Your task to perform on an android device: turn on bluetooth scan Image 0: 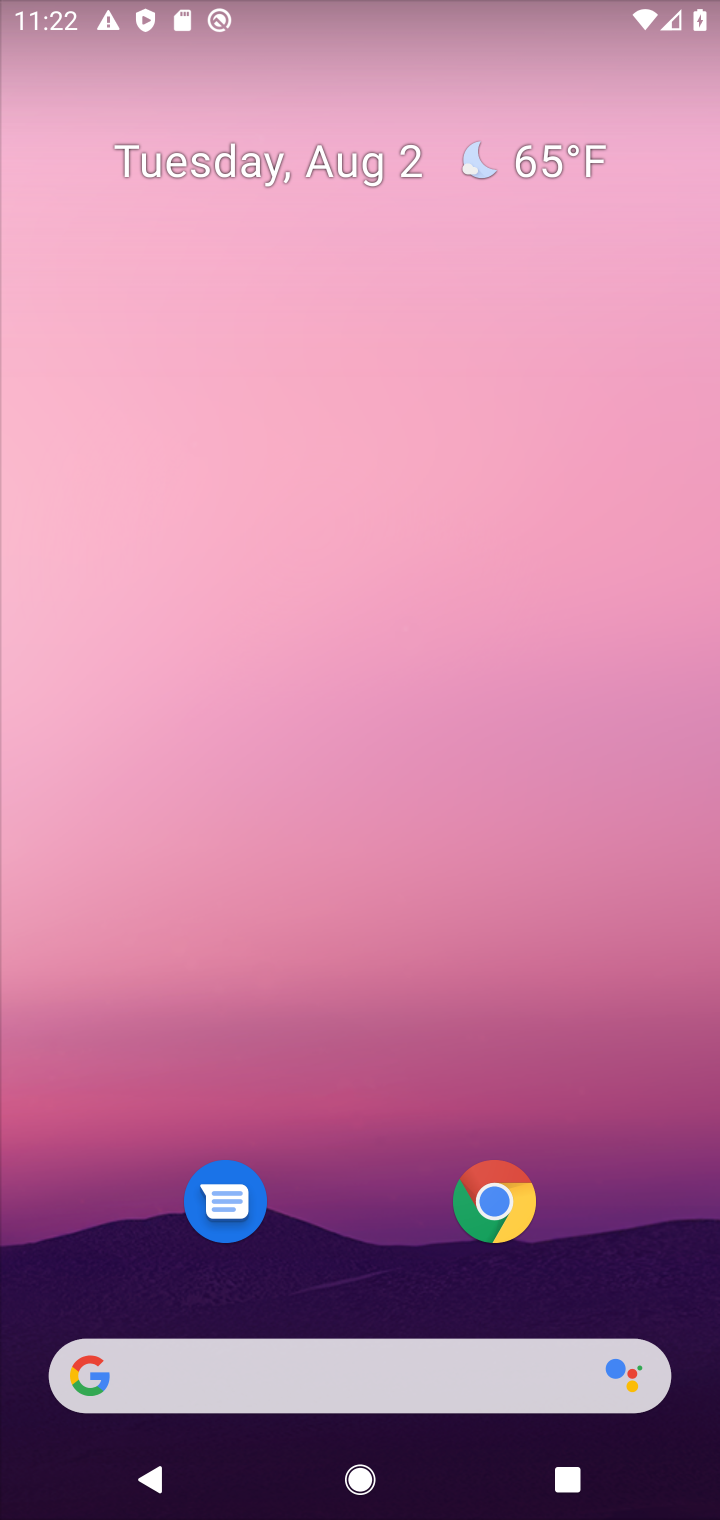
Step 0: drag from (342, 1282) to (169, 43)
Your task to perform on an android device: turn on bluetooth scan Image 1: 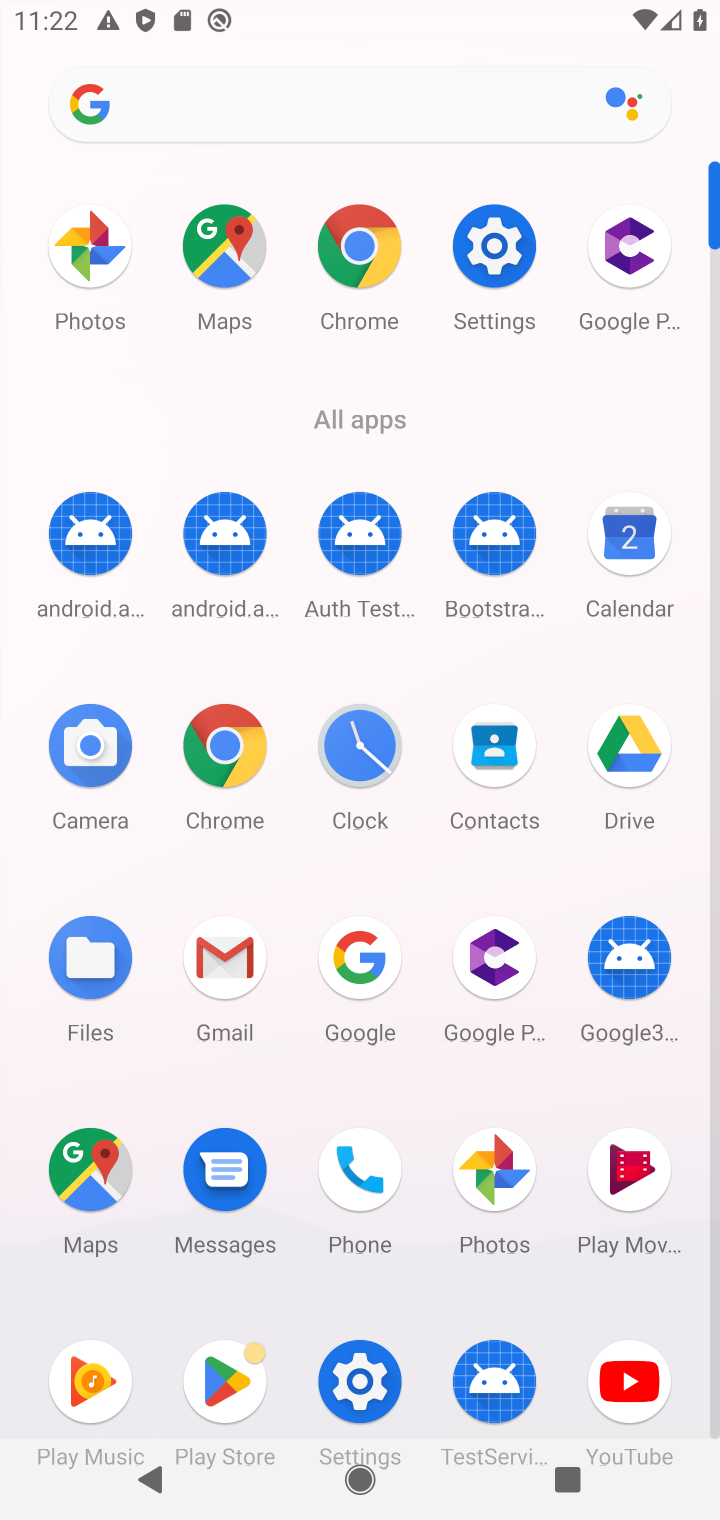
Step 1: click (482, 286)
Your task to perform on an android device: turn on bluetooth scan Image 2: 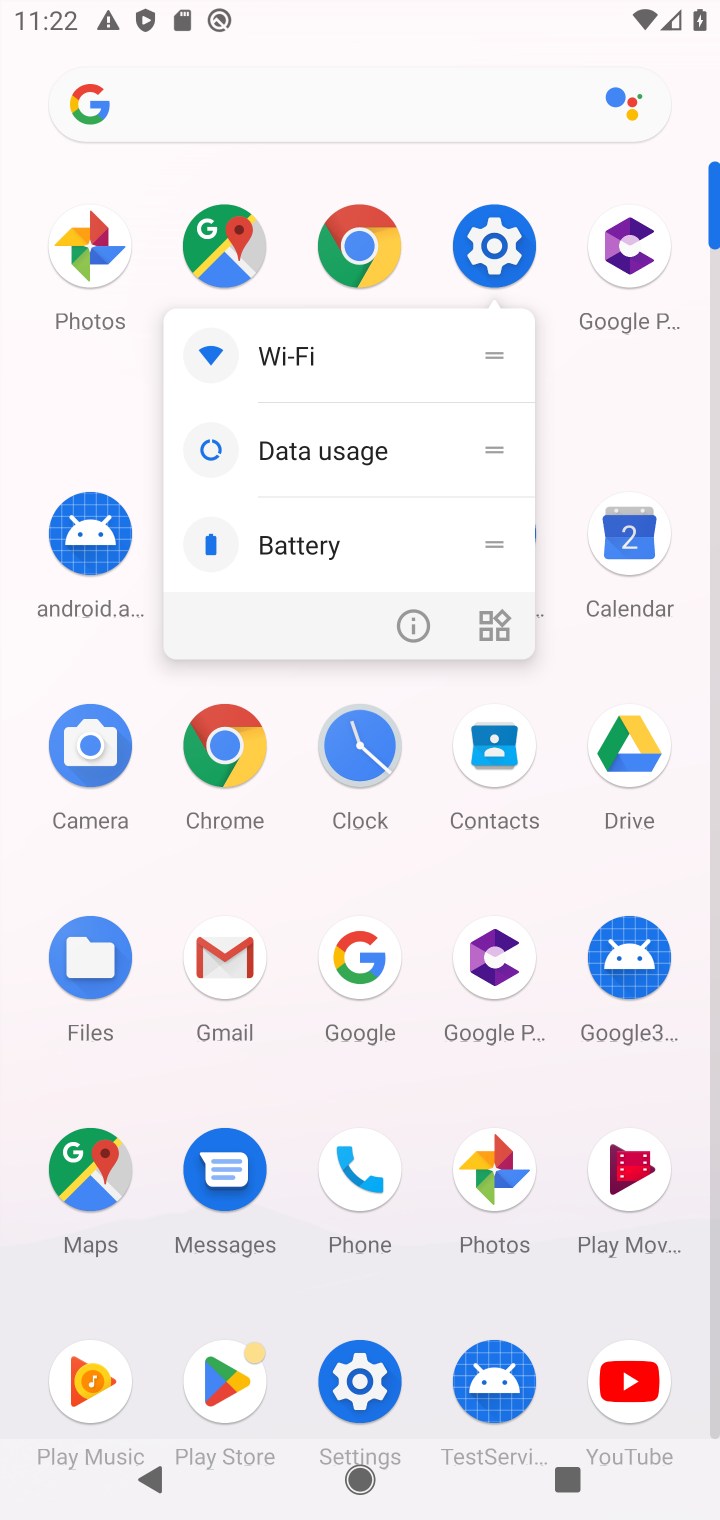
Step 2: click (479, 244)
Your task to perform on an android device: turn on bluetooth scan Image 3: 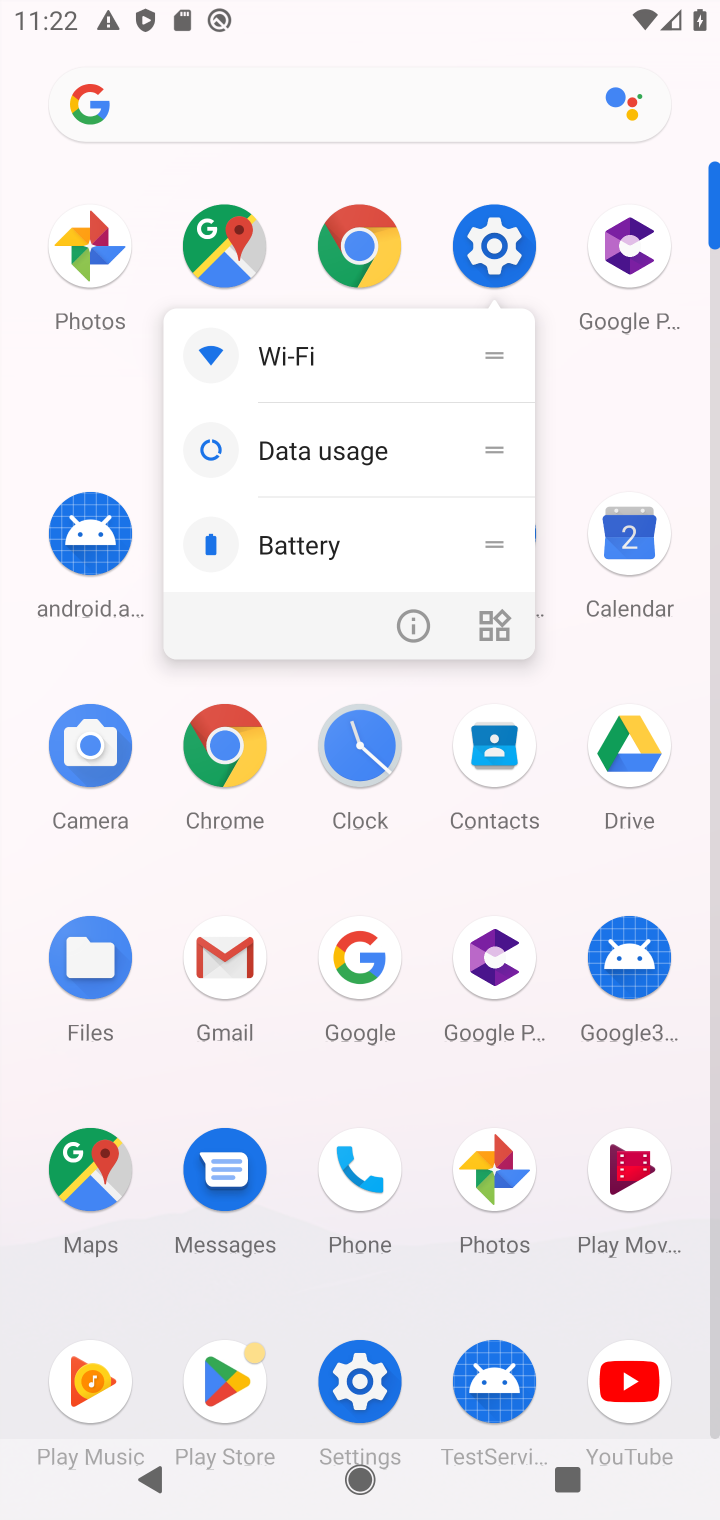
Step 3: click (477, 243)
Your task to perform on an android device: turn on bluetooth scan Image 4: 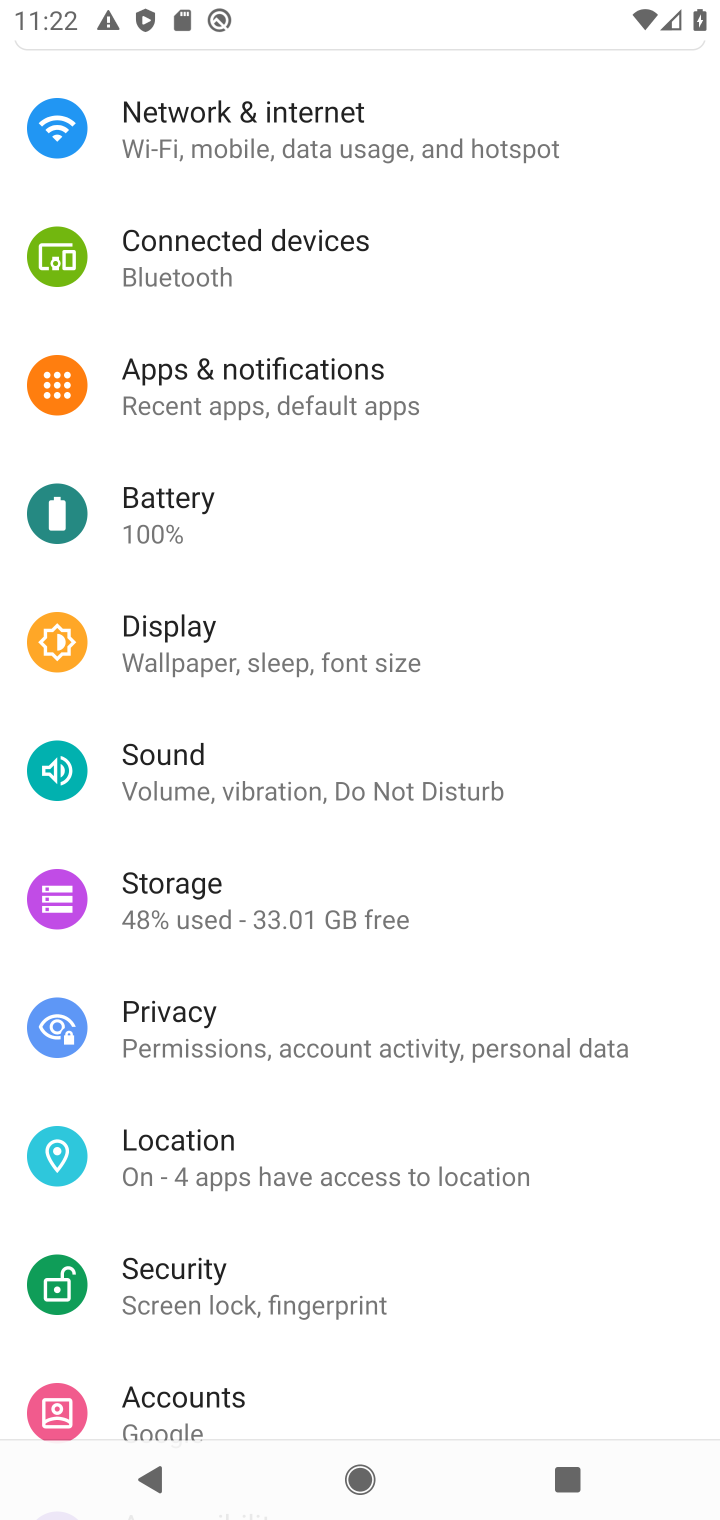
Step 4: drag from (230, 1107) to (211, 644)
Your task to perform on an android device: turn on bluetooth scan Image 5: 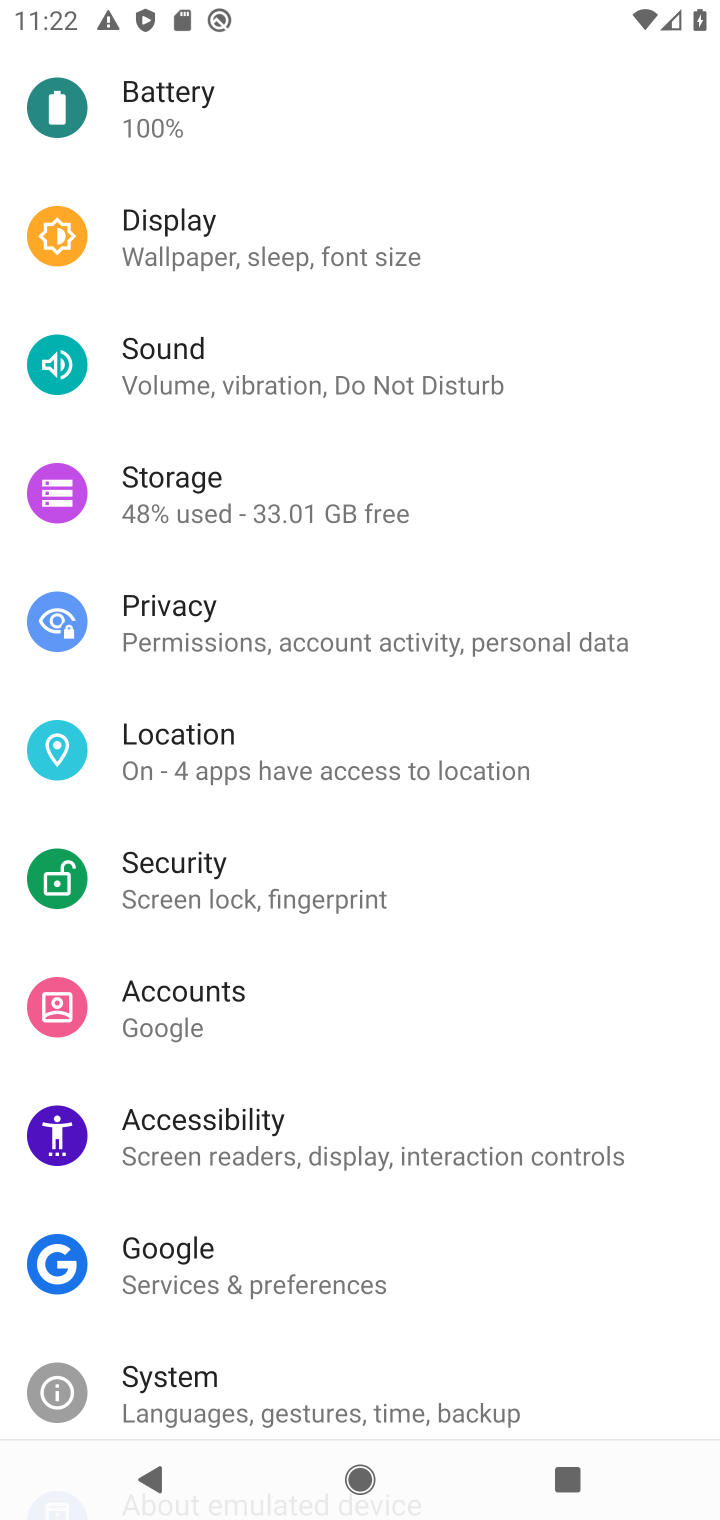
Step 5: click (174, 741)
Your task to perform on an android device: turn on bluetooth scan Image 6: 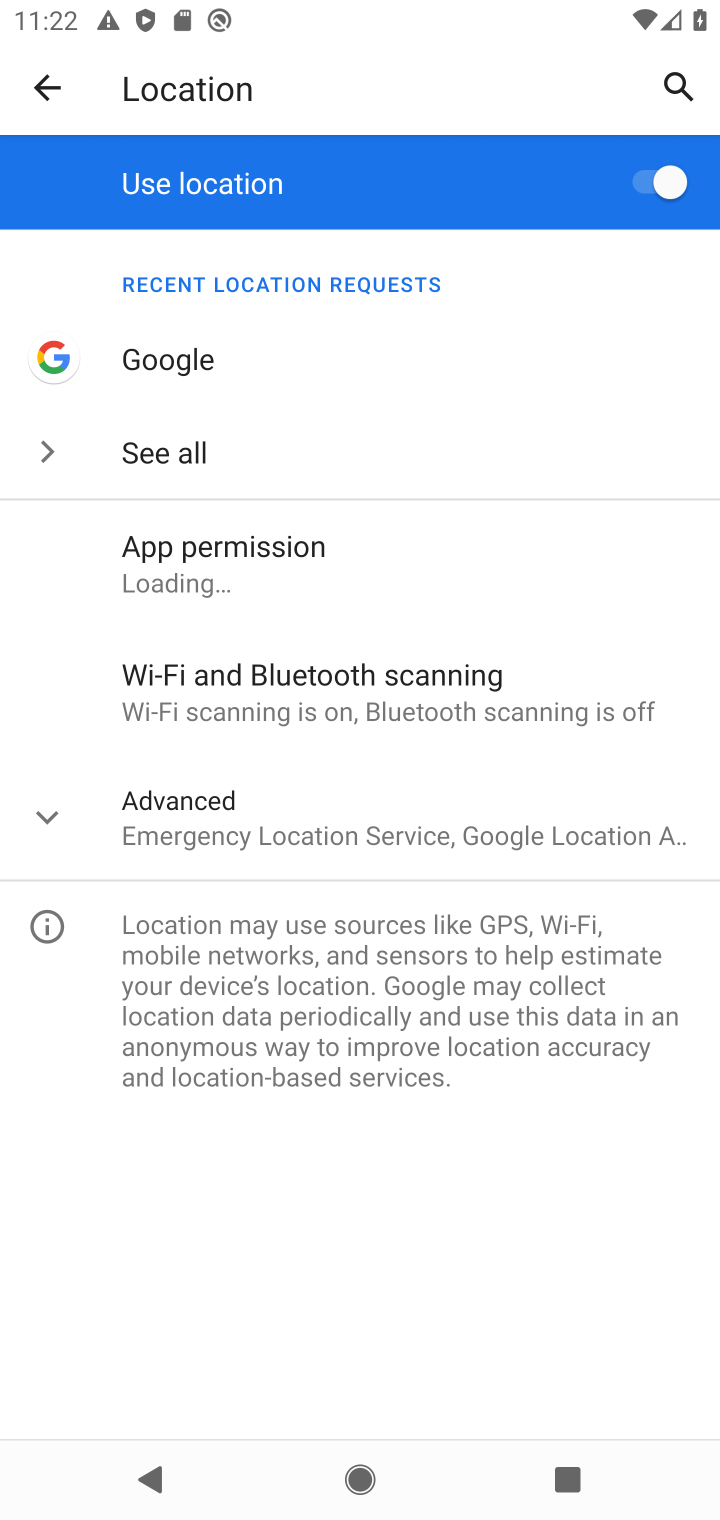
Step 6: click (292, 647)
Your task to perform on an android device: turn on bluetooth scan Image 7: 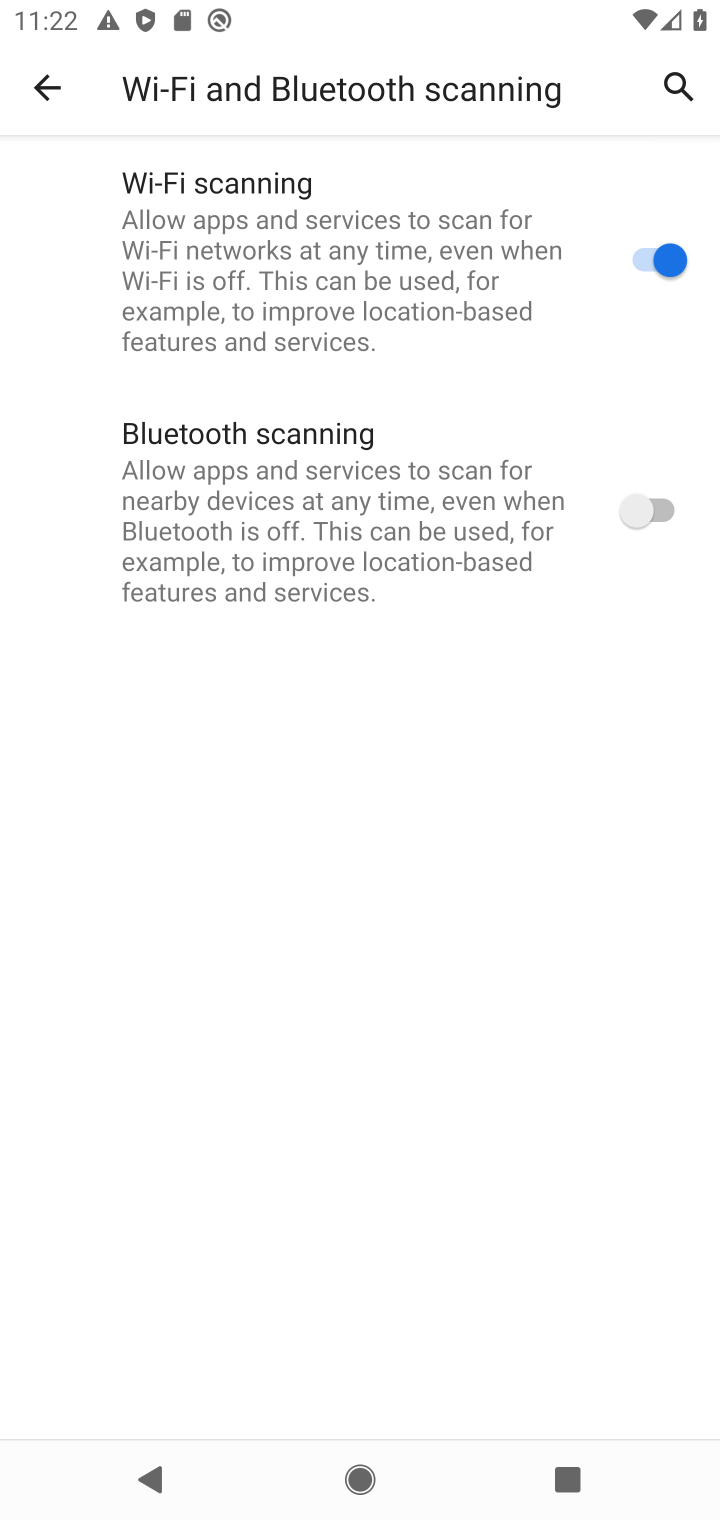
Step 7: click (639, 519)
Your task to perform on an android device: turn on bluetooth scan Image 8: 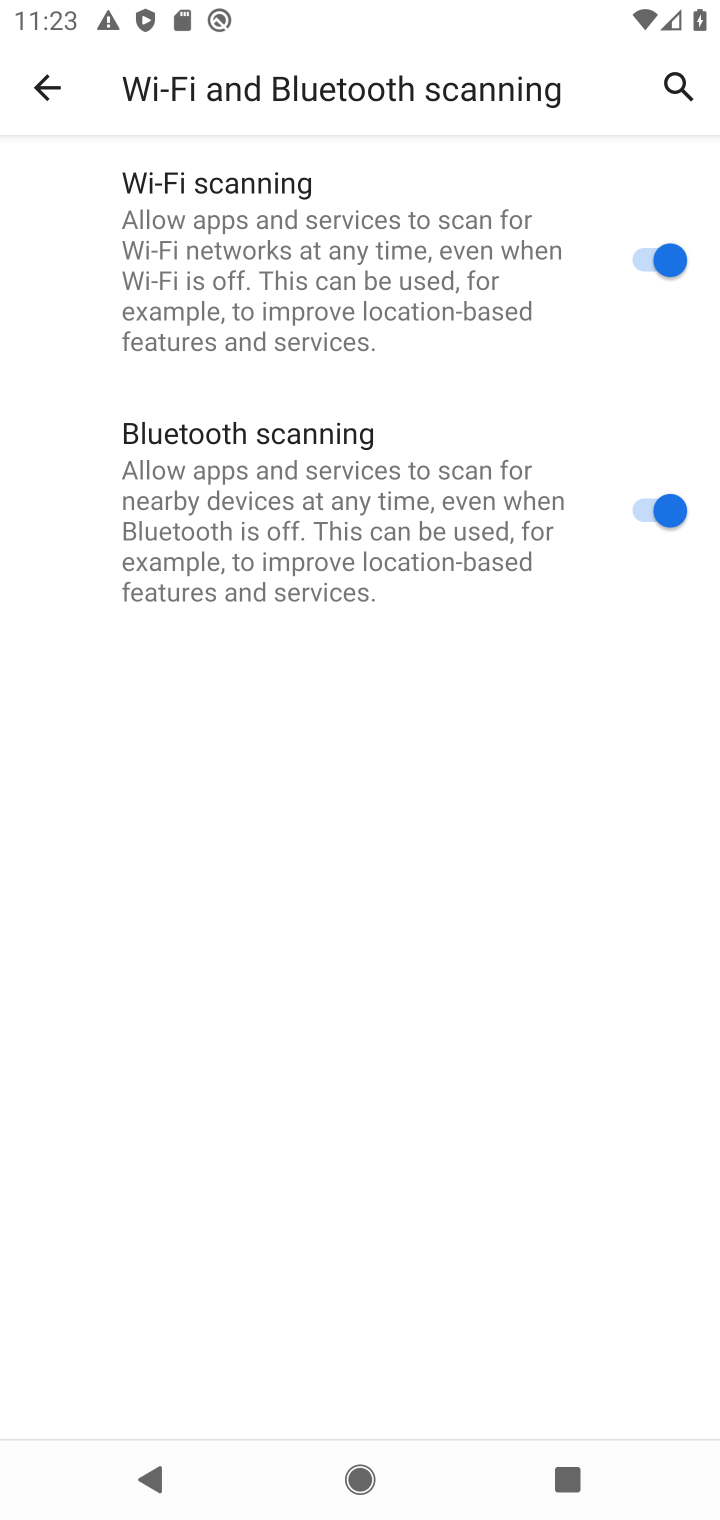
Step 8: task complete